Your task to perform on an android device: Open display settings Image 0: 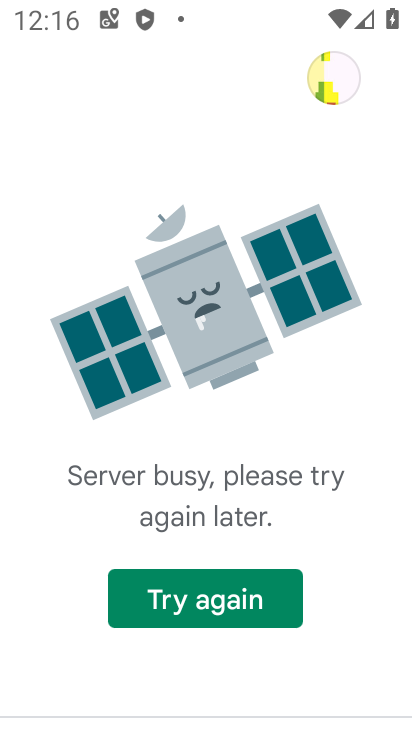
Step 0: press home button
Your task to perform on an android device: Open display settings Image 1: 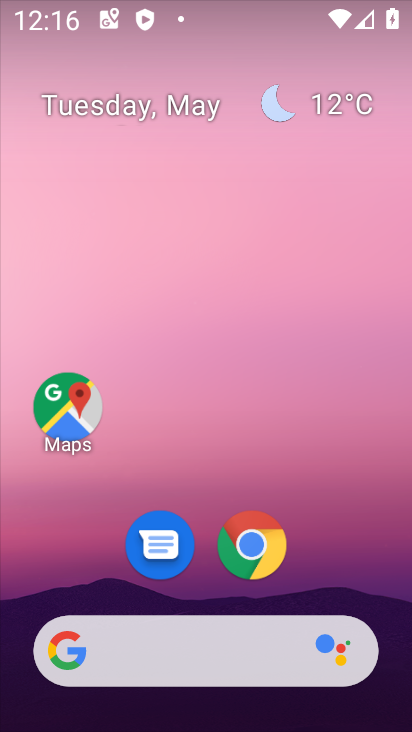
Step 1: drag from (352, 584) to (357, 150)
Your task to perform on an android device: Open display settings Image 2: 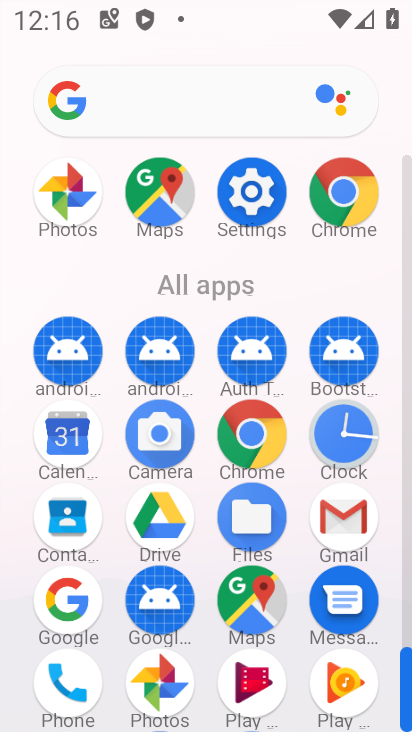
Step 2: click (262, 201)
Your task to perform on an android device: Open display settings Image 3: 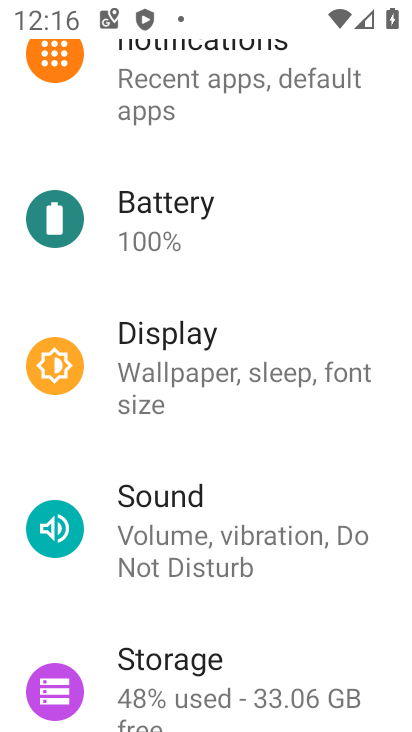
Step 3: click (196, 356)
Your task to perform on an android device: Open display settings Image 4: 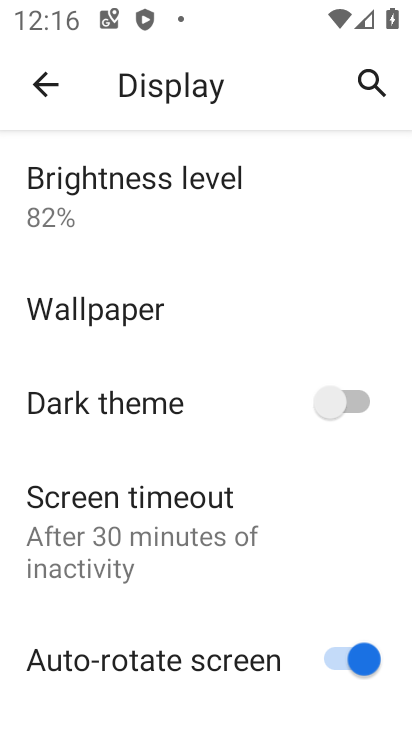
Step 4: task complete